Your task to perform on an android device: turn on javascript in the chrome app Image 0: 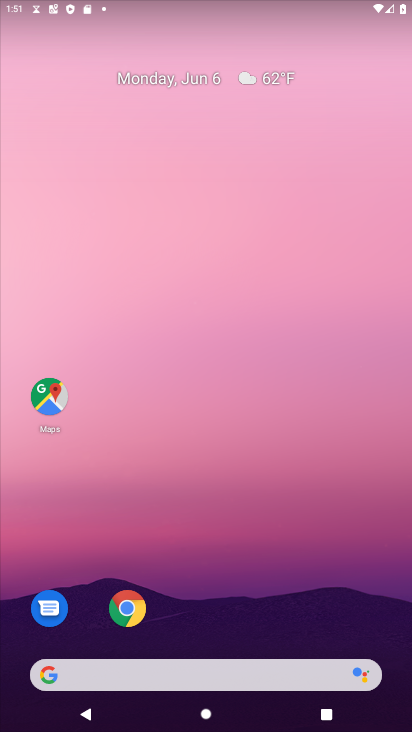
Step 0: drag from (290, 586) to (322, 111)
Your task to perform on an android device: turn on javascript in the chrome app Image 1: 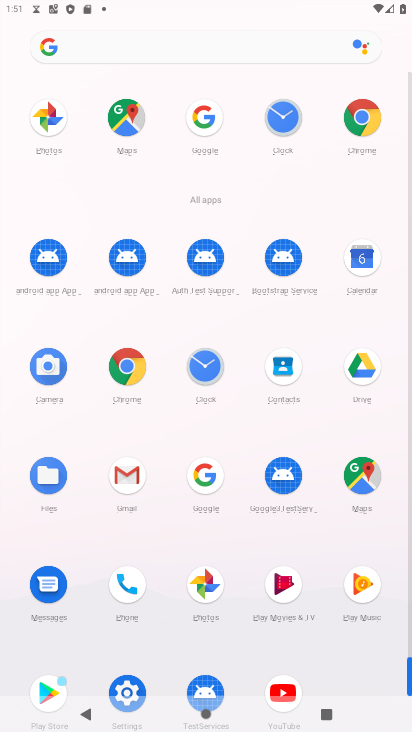
Step 1: click (360, 131)
Your task to perform on an android device: turn on javascript in the chrome app Image 2: 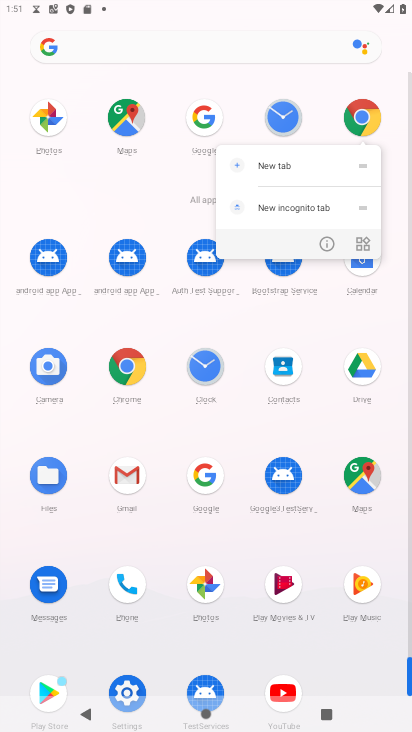
Step 2: click (360, 128)
Your task to perform on an android device: turn on javascript in the chrome app Image 3: 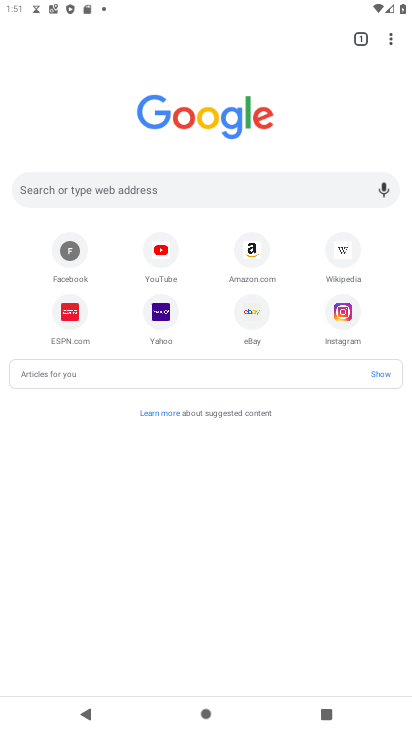
Step 3: drag from (401, 30) to (263, 330)
Your task to perform on an android device: turn on javascript in the chrome app Image 4: 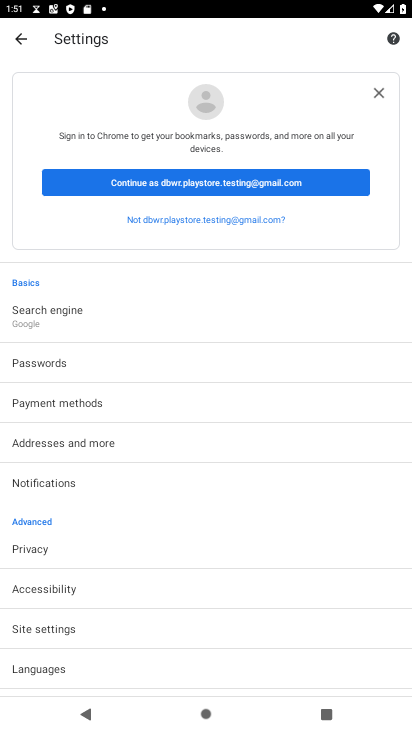
Step 4: drag from (149, 616) to (159, 329)
Your task to perform on an android device: turn on javascript in the chrome app Image 5: 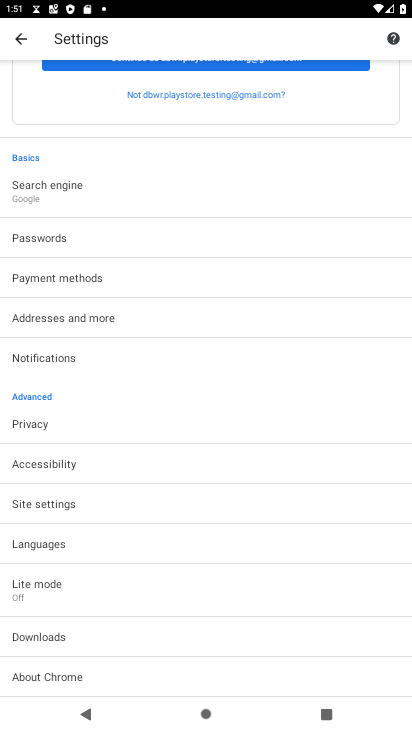
Step 5: click (37, 490)
Your task to perform on an android device: turn on javascript in the chrome app Image 6: 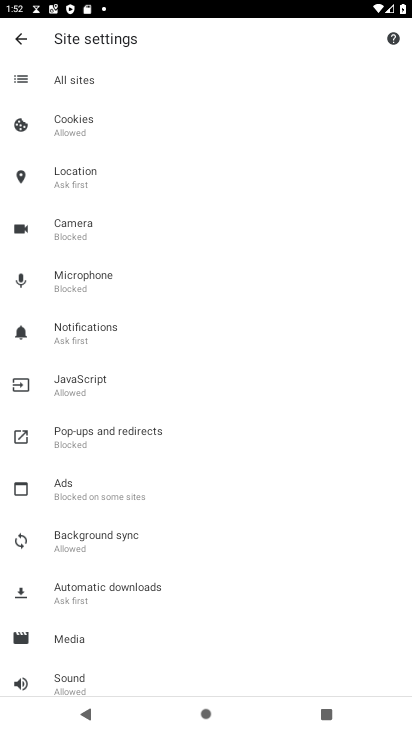
Step 6: click (169, 379)
Your task to perform on an android device: turn on javascript in the chrome app Image 7: 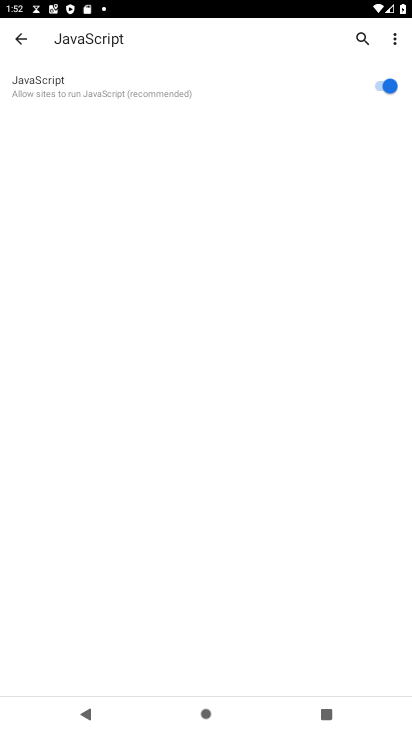
Step 7: task complete